Your task to perform on an android device: remove spam from my inbox in the gmail app Image 0: 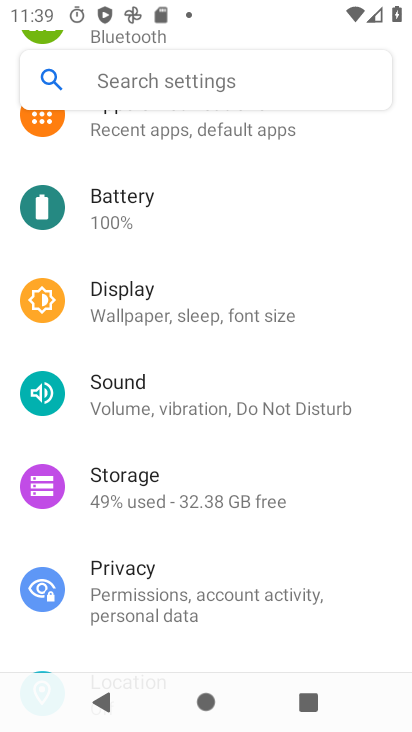
Step 0: press home button
Your task to perform on an android device: remove spam from my inbox in the gmail app Image 1: 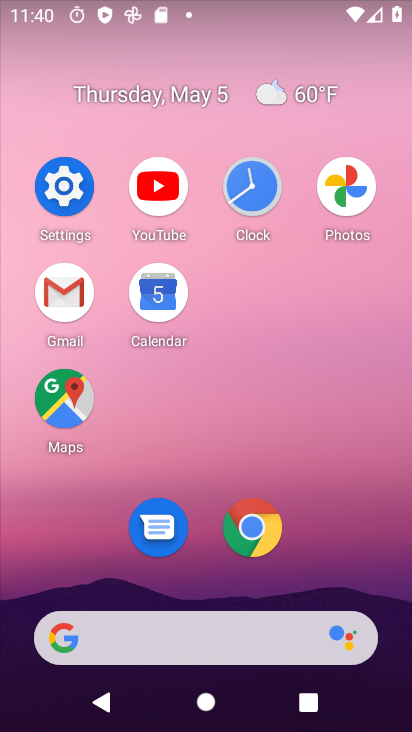
Step 1: click (82, 300)
Your task to perform on an android device: remove spam from my inbox in the gmail app Image 2: 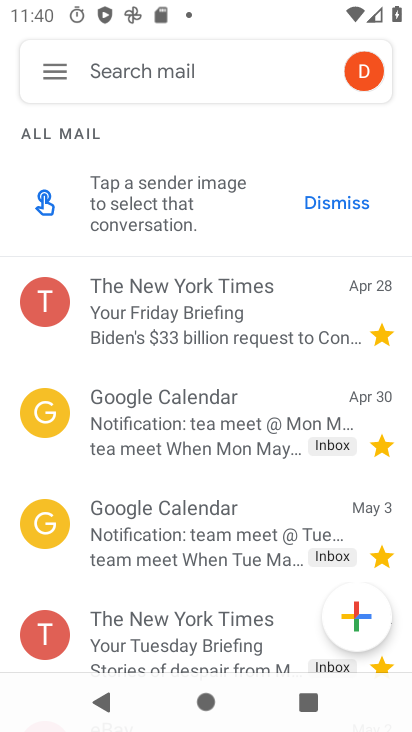
Step 2: click (67, 66)
Your task to perform on an android device: remove spam from my inbox in the gmail app Image 3: 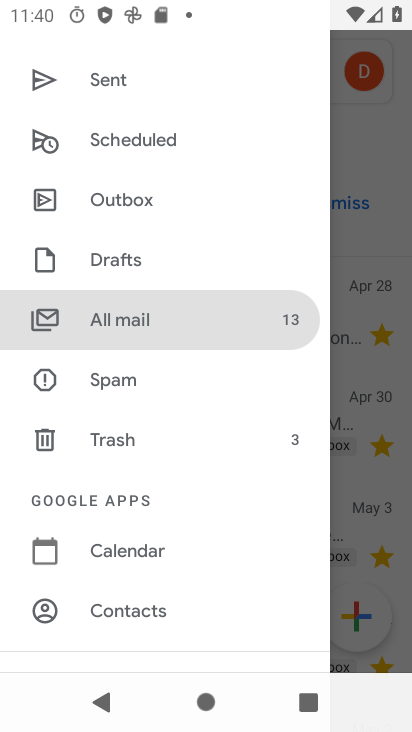
Step 3: click (158, 380)
Your task to perform on an android device: remove spam from my inbox in the gmail app Image 4: 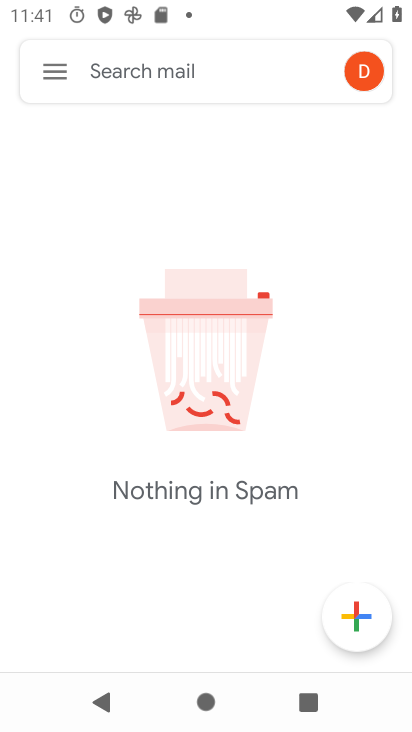
Step 4: task complete